Your task to perform on an android device: allow notifications from all sites in the chrome app Image 0: 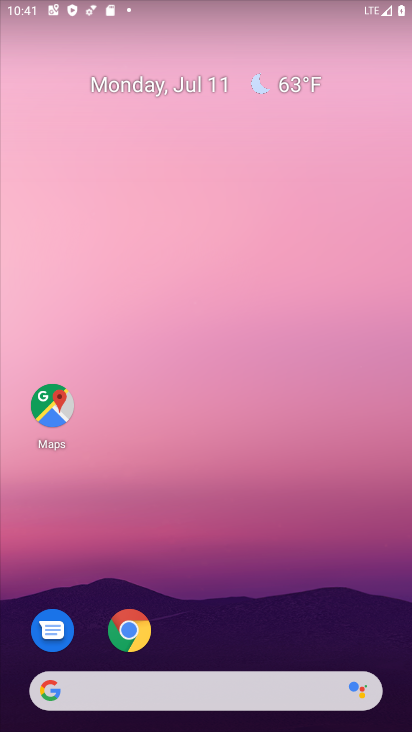
Step 0: click (126, 632)
Your task to perform on an android device: allow notifications from all sites in the chrome app Image 1: 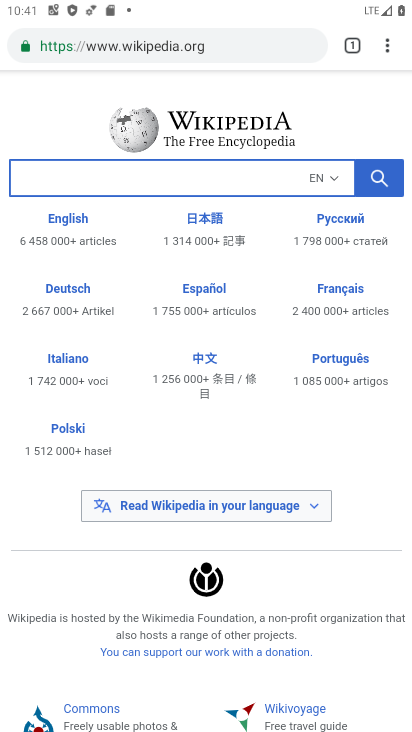
Step 1: click (386, 50)
Your task to perform on an android device: allow notifications from all sites in the chrome app Image 2: 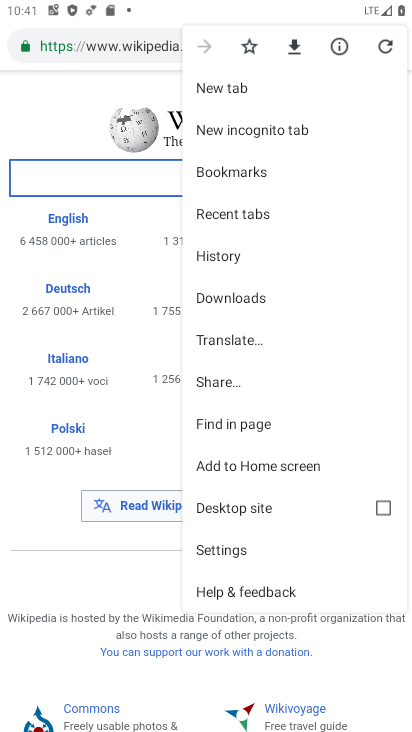
Step 2: click (230, 557)
Your task to perform on an android device: allow notifications from all sites in the chrome app Image 3: 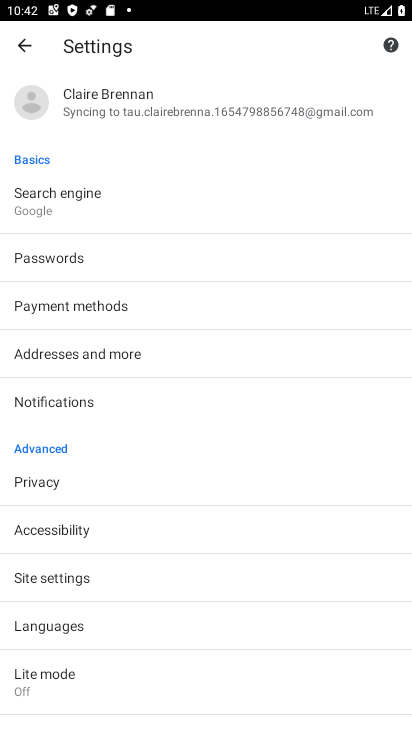
Step 3: drag from (133, 663) to (157, 450)
Your task to perform on an android device: allow notifications from all sites in the chrome app Image 4: 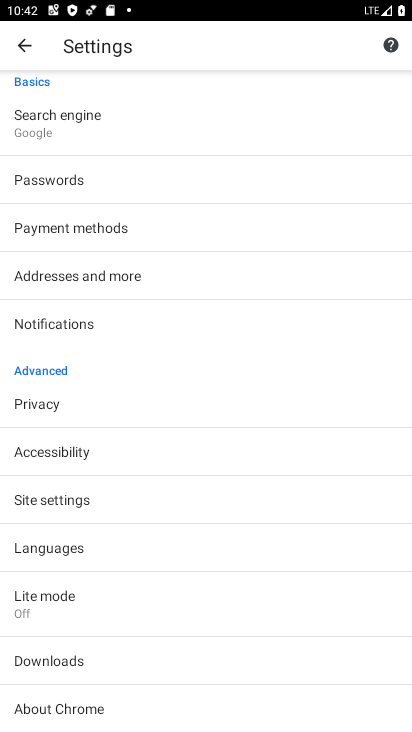
Step 4: click (26, 501)
Your task to perform on an android device: allow notifications from all sites in the chrome app Image 5: 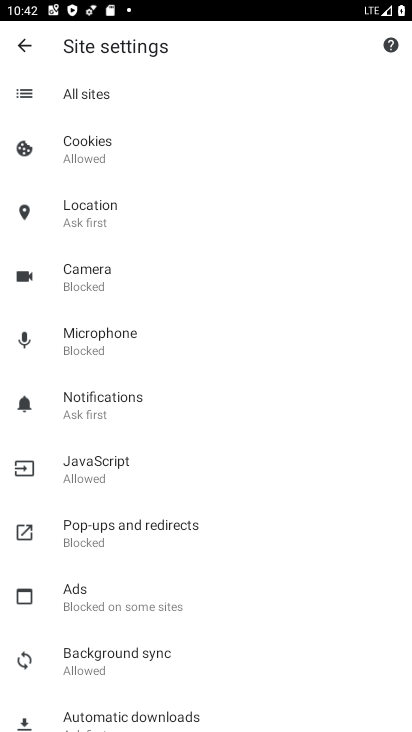
Step 5: click (113, 407)
Your task to perform on an android device: allow notifications from all sites in the chrome app Image 6: 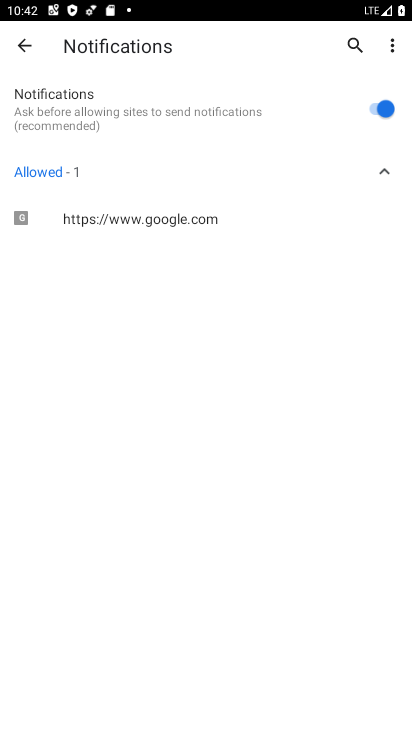
Step 6: task complete